Your task to perform on an android device: Open maps Image 0: 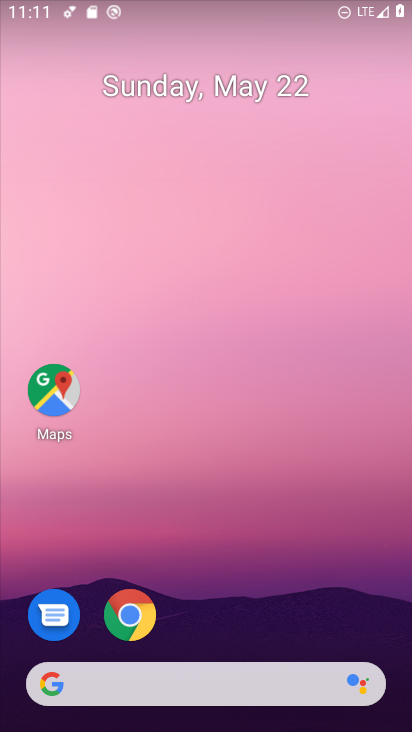
Step 0: click (54, 379)
Your task to perform on an android device: Open maps Image 1: 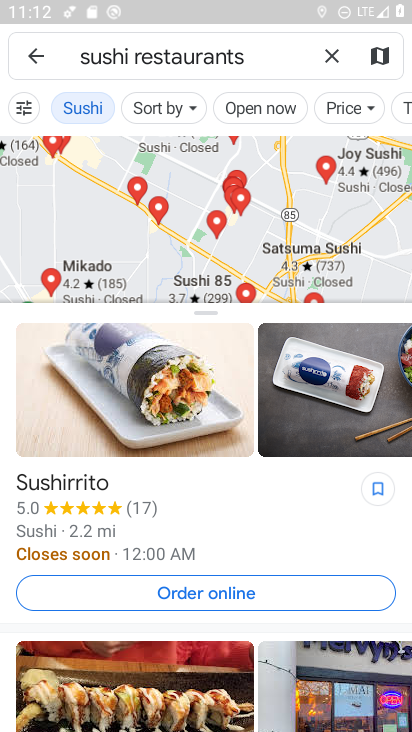
Step 1: task complete